Your task to perform on an android device: Open Yahoo.com Image 0: 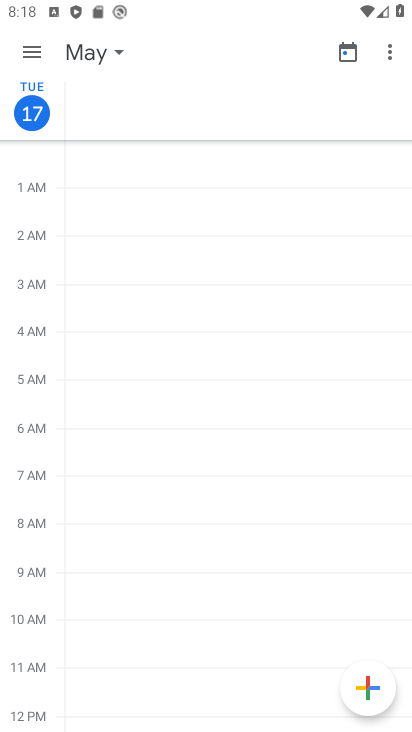
Step 0: press home button
Your task to perform on an android device: Open Yahoo.com Image 1: 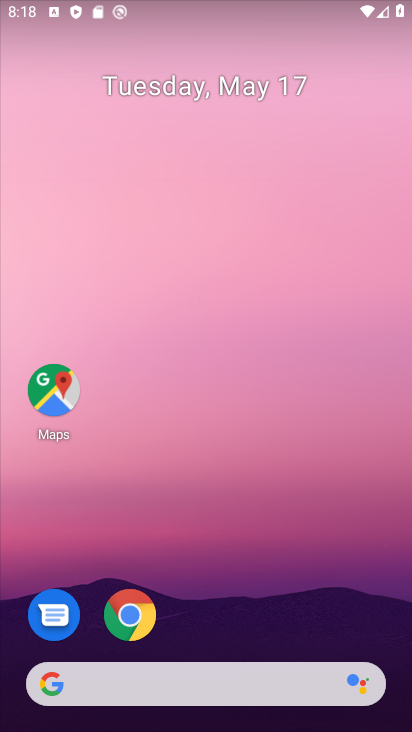
Step 1: click (137, 620)
Your task to perform on an android device: Open Yahoo.com Image 2: 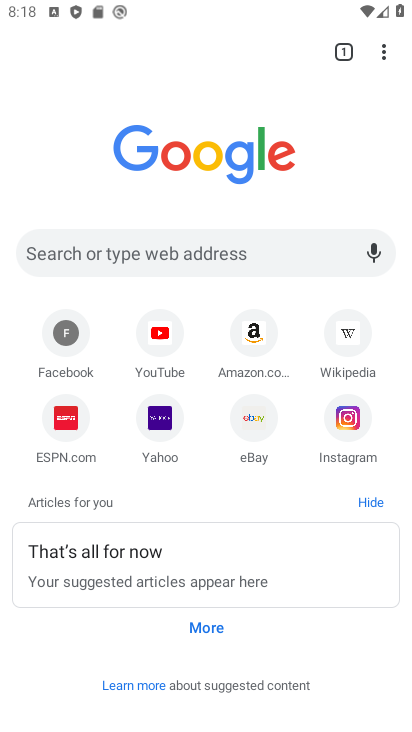
Step 2: click (114, 250)
Your task to perform on an android device: Open Yahoo.com Image 3: 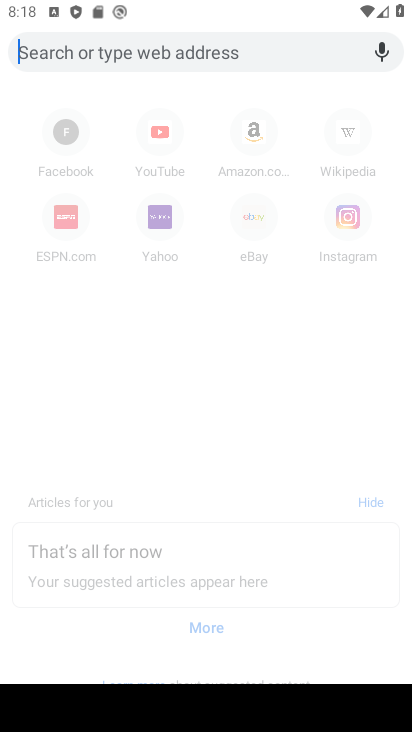
Step 3: type "yahoo.com"
Your task to perform on an android device: Open Yahoo.com Image 4: 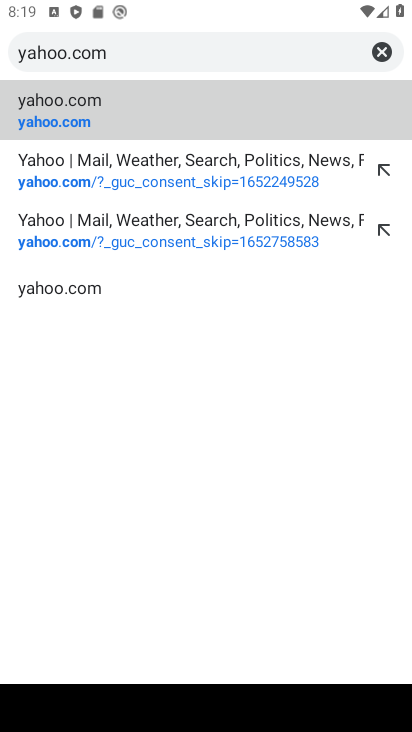
Step 4: click (50, 110)
Your task to perform on an android device: Open Yahoo.com Image 5: 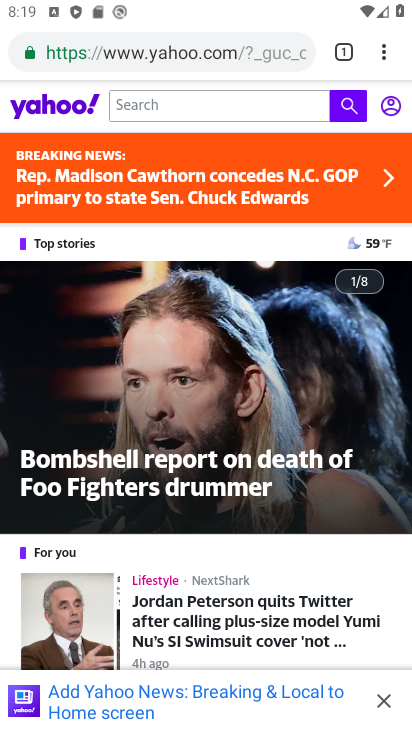
Step 5: task complete